Your task to perform on an android device: Check the settings for the Google Maps app Image 0: 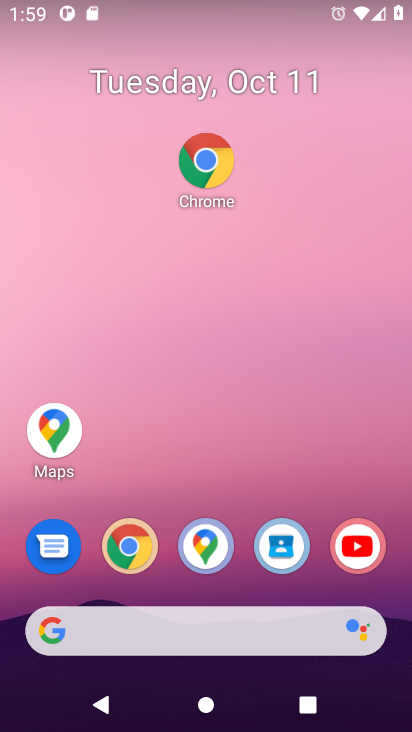
Step 0: click (125, 547)
Your task to perform on an android device: Check the settings for the Google Maps app Image 1: 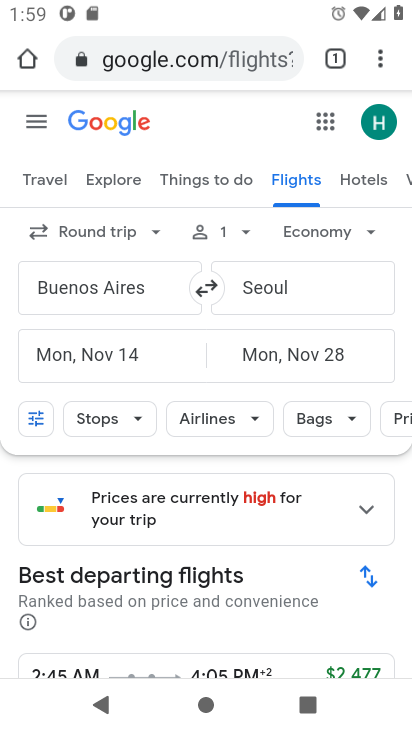
Step 1: click (185, 59)
Your task to perform on an android device: Check the settings for the Google Maps app Image 2: 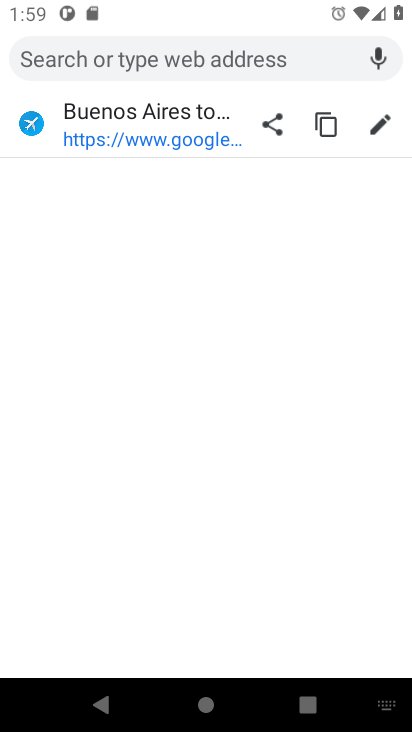
Step 2: press home button
Your task to perform on an android device: Check the settings for the Google Maps app Image 3: 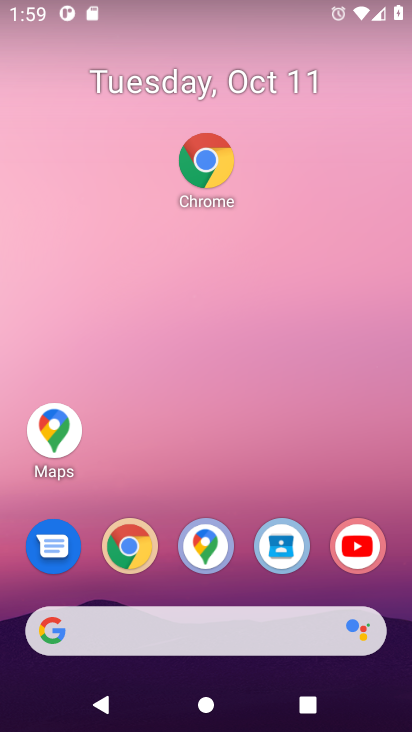
Step 3: drag from (197, 578) to (212, 223)
Your task to perform on an android device: Check the settings for the Google Maps app Image 4: 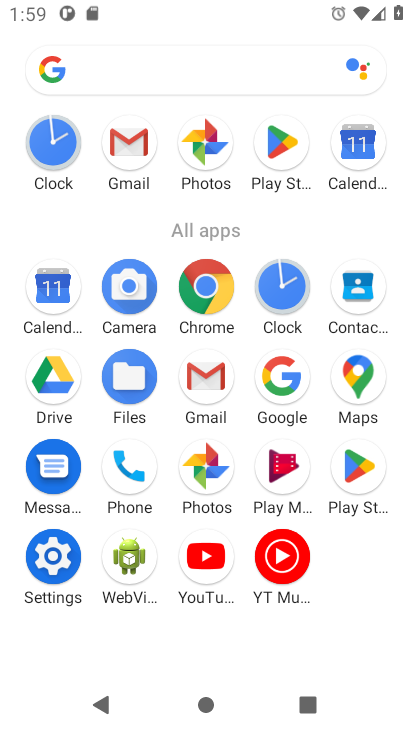
Step 4: click (62, 547)
Your task to perform on an android device: Check the settings for the Google Maps app Image 5: 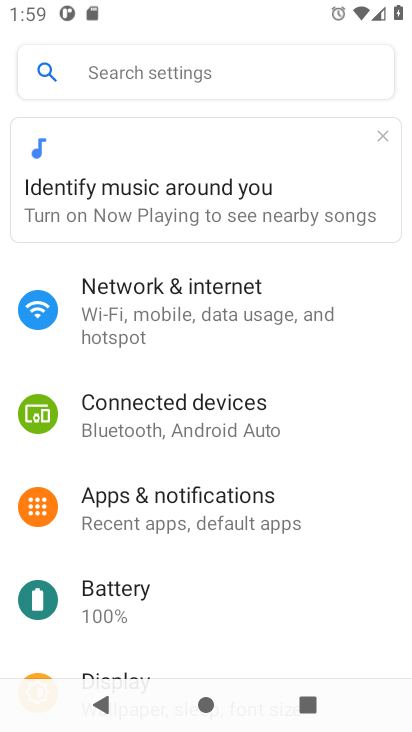
Step 5: click (205, 515)
Your task to perform on an android device: Check the settings for the Google Maps app Image 6: 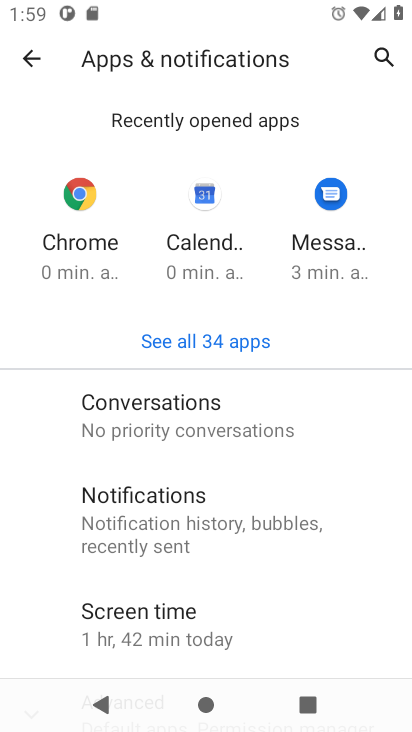
Step 6: drag from (154, 543) to (146, 499)
Your task to perform on an android device: Check the settings for the Google Maps app Image 7: 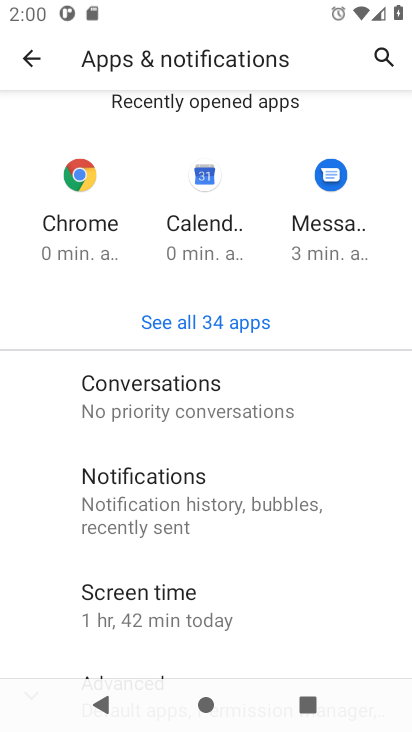
Step 7: click (186, 326)
Your task to perform on an android device: Check the settings for the Google Maps app Image 8: 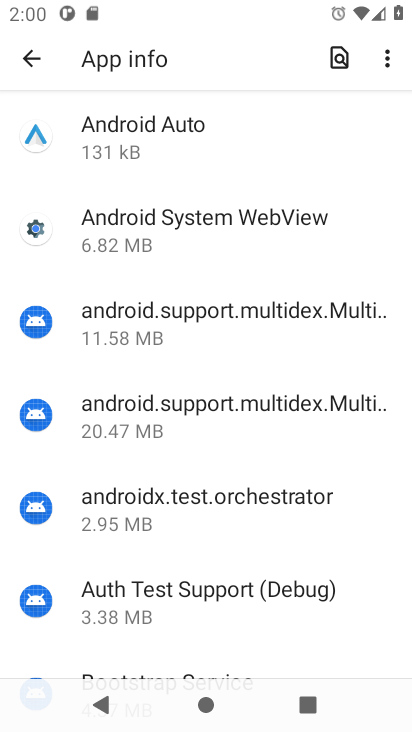
Step 8: drag from (167, 601) to (188, 218)
Your task to perform on an android device: Check the settings for the Google Maps app Image 9: 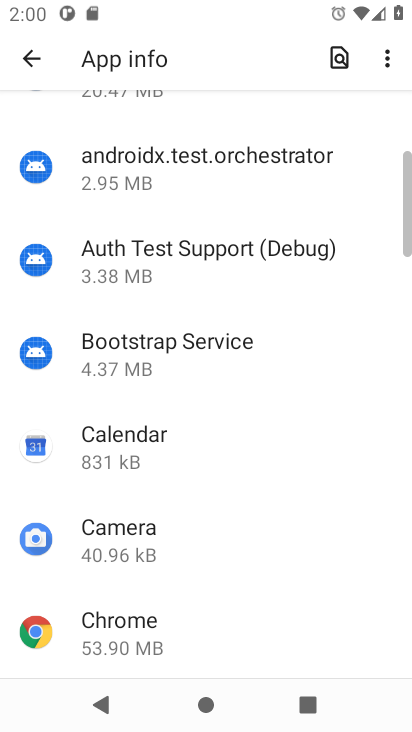
Step 9: drag from (197, 621) to (205, 196)
Your task to perform on an android device: Check the settings for the Google Maps app Image 10: 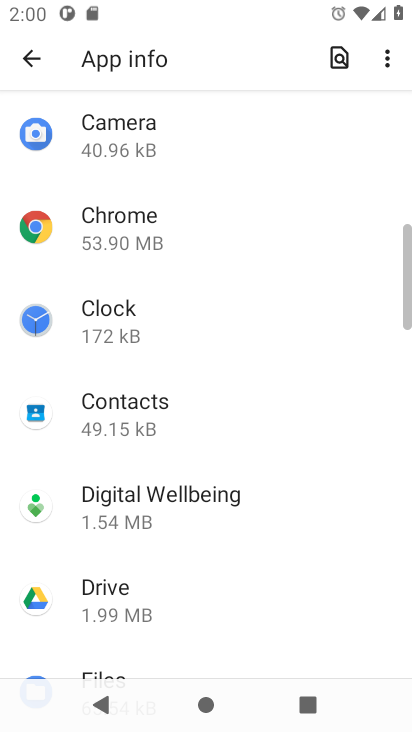
Step 10: drag from (208, 632) to (208, 241)
Your task to perform on an android device: Check the settings for the Google Maps app Image 11: 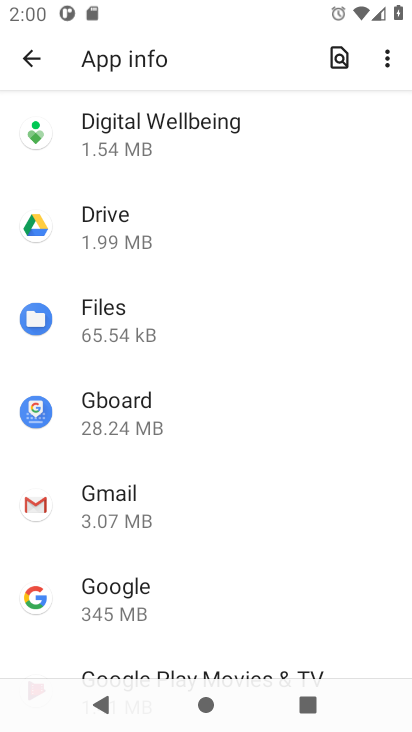
Step 11: drag from (183, 620) to (224, 209)
Your task to perform on an android device: Check the settings for the Google Maps app Image 12: 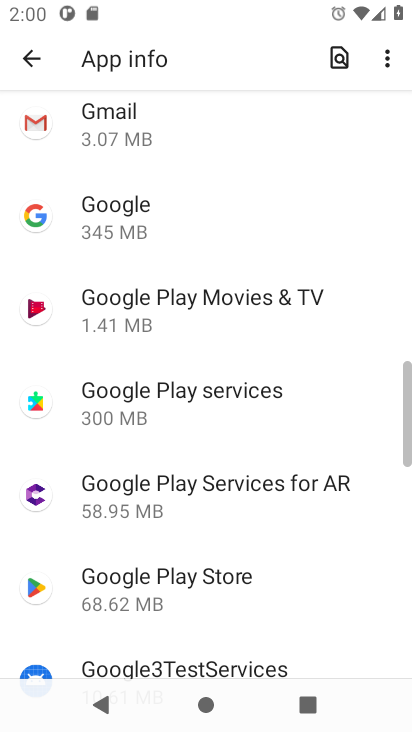
Step 12: drag from (193, 665) to (213, 298)
Your task to perform on an android device: Check the settings for the Google Maps app Image 13: 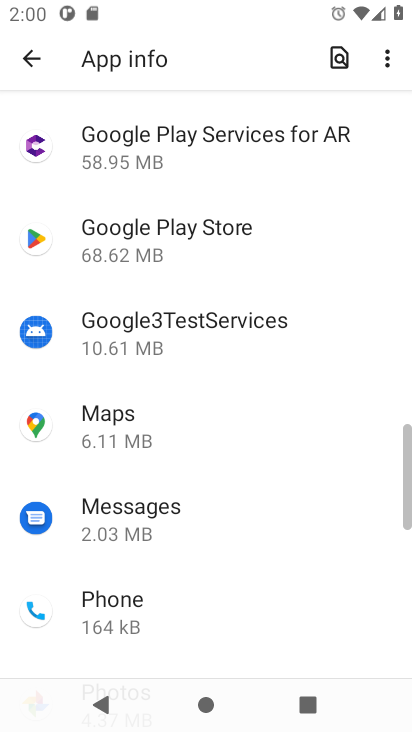
Step 13: click (155, 422)
Your task to perform on an android device: Check the settings for the Google Maps app Image 14: 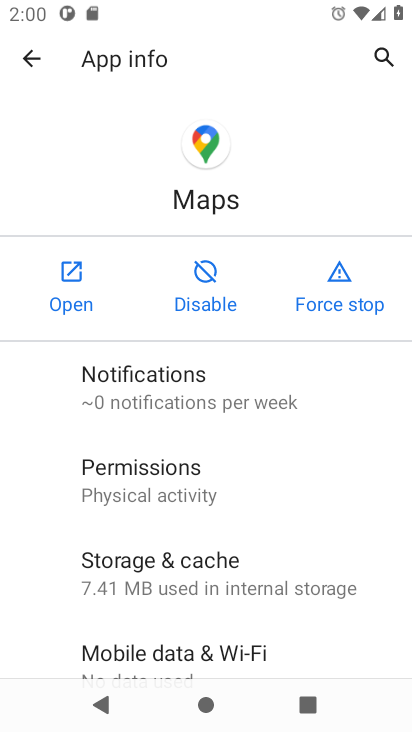
Step 14: click (135, 400)
Your task to perform on an android device: Check the settings for the Google Maps app Image 15: 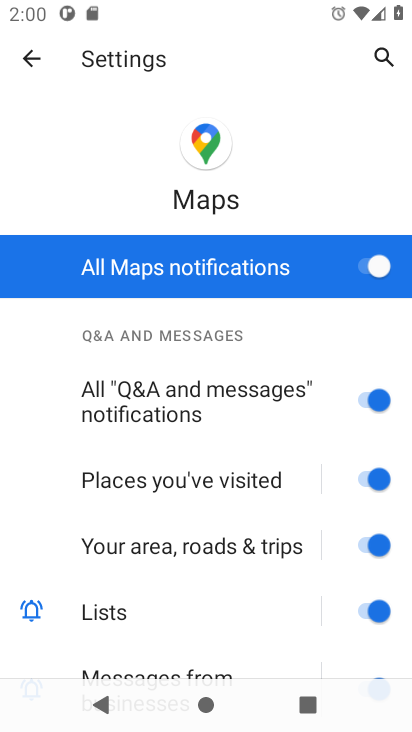
Step 15: drag from (199, 550) to (209, 293)
Your task to perform on an android device: Check the settings for the Google Maps app Image 16: 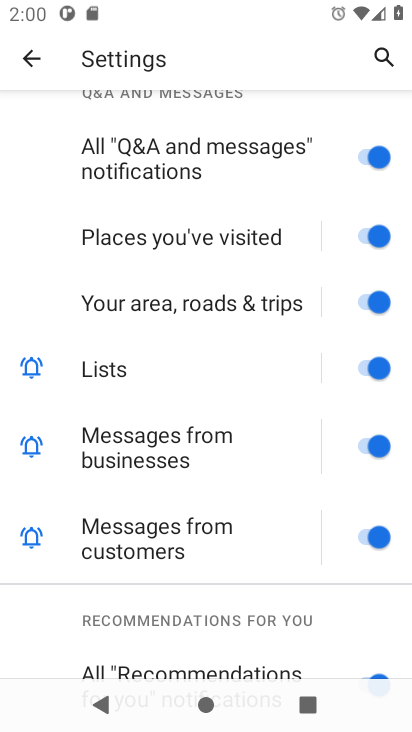
Step 16: drag from (192, 594) to (195, 363)
Your task to perform on an android device: Check the settings for the Google Maps app Image 17: 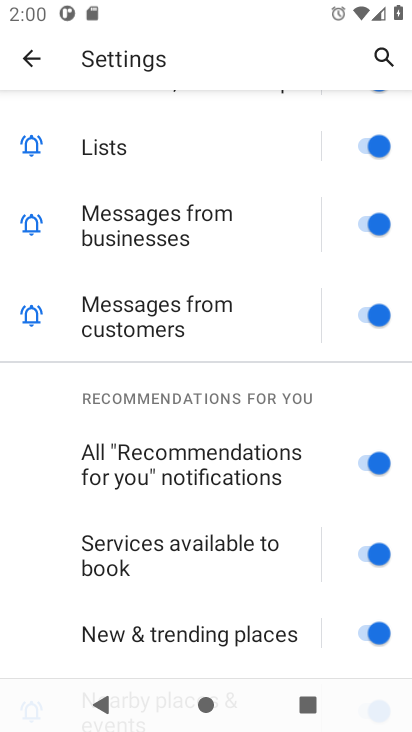
Step 17: drag from (256, 609) to (257, 304)
Your task to perform on an android device: Check the settings for the Google Maps app Image 18: 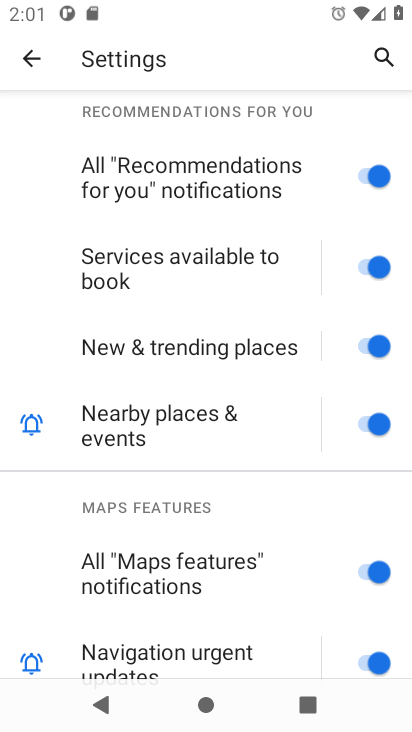
Step 18: drag from (171, 639) to (174, 241)
Your task to perform on an android device: Check the settings for the Google Maps app Image 19: 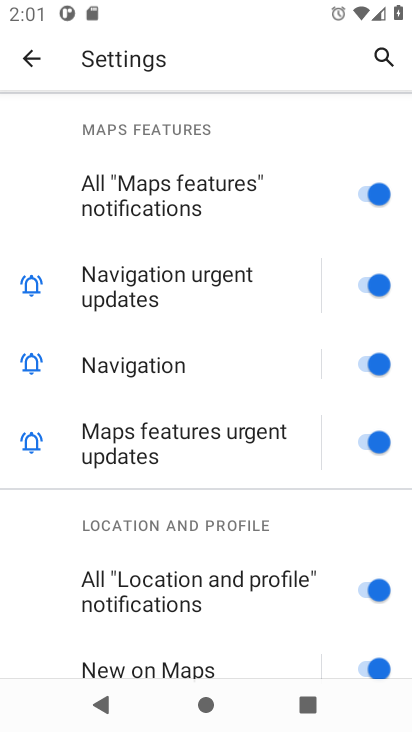
Step 19: drag from (193, 560) to (197, 149)
Your task to perform on an android device: Check the settings for the Google Maps app Image 20: 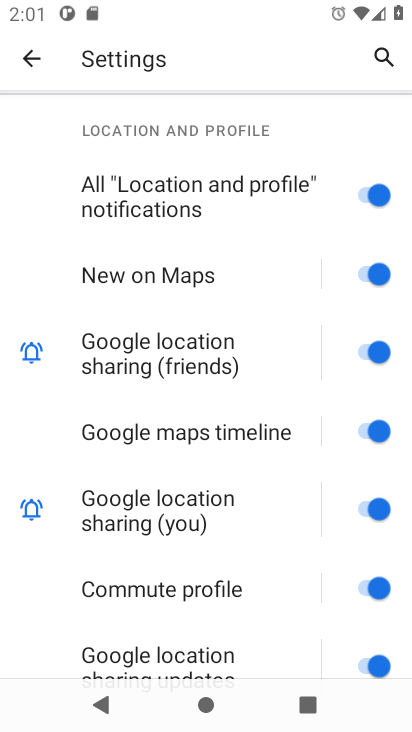
Step 20: drag from (258, 534) to (274, 209)
Your task to perform on an android device: Check the settings for the Google Maps app Image 21: 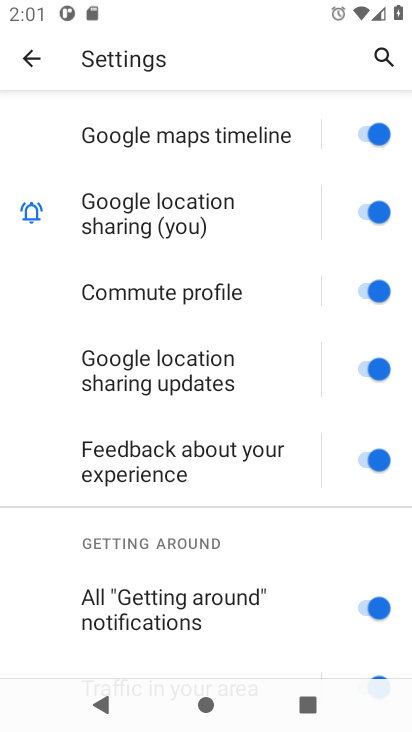
Step 21: drag from (244, 603) to (255, 212)
Your task to perform on an android device: Check the settings for the Google Maps app Image 22: 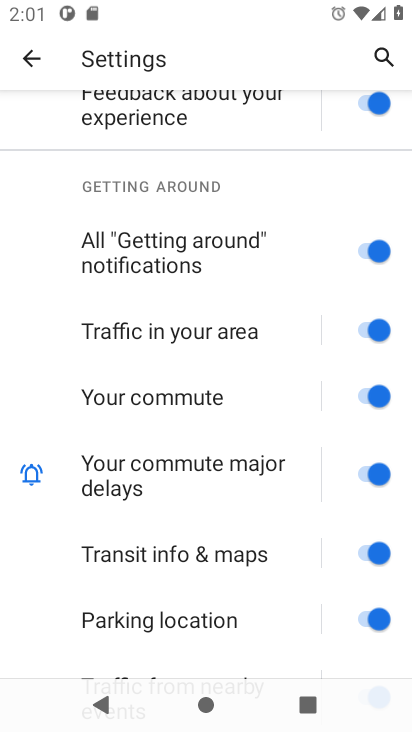
Step 22: drag from (213, 607) to (211, 263)
Your task to perform on an android device: Check the settings for the Google Maps app Image 23: 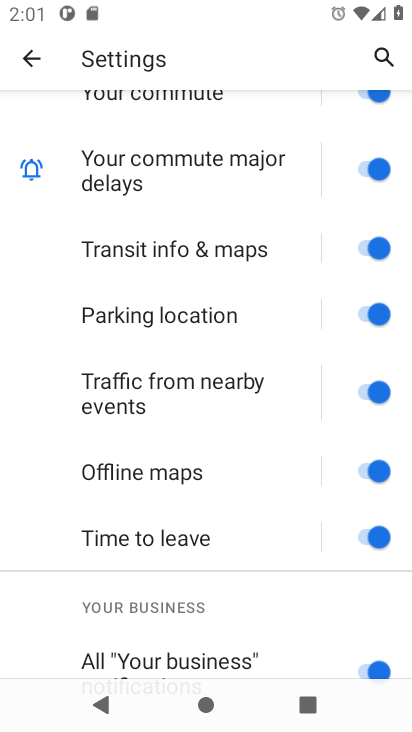
Step 23: drag from (190, 592) to (216, 207)
Your task to perform on an android device: Check the settings for the Google Maps app Image 24: 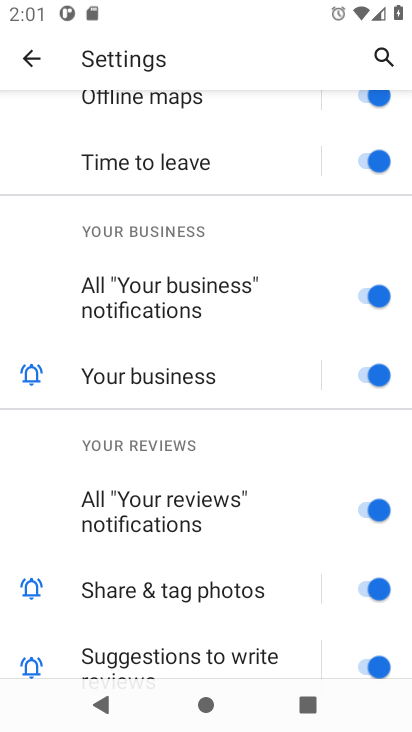
Step 24: drag from (202, 437) to (230, 176)
Your task to perform on an android device: Check the settings for the Google Maps app Image 25: 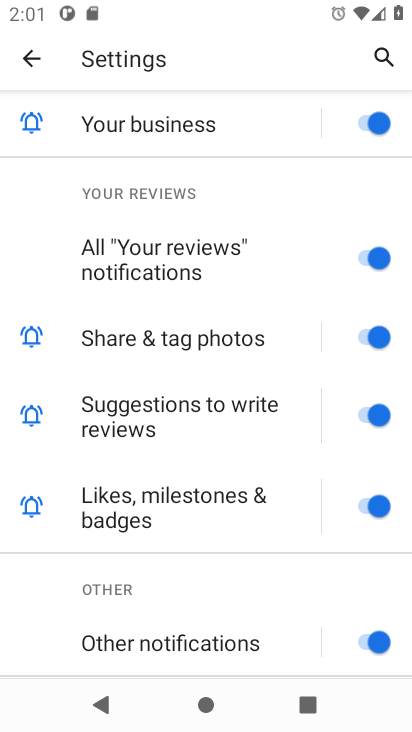
Step 25: drag from (208, 577) to (229, 183)
Your task to perform on an android device: Check the settings for the Google Maps app Image 26: 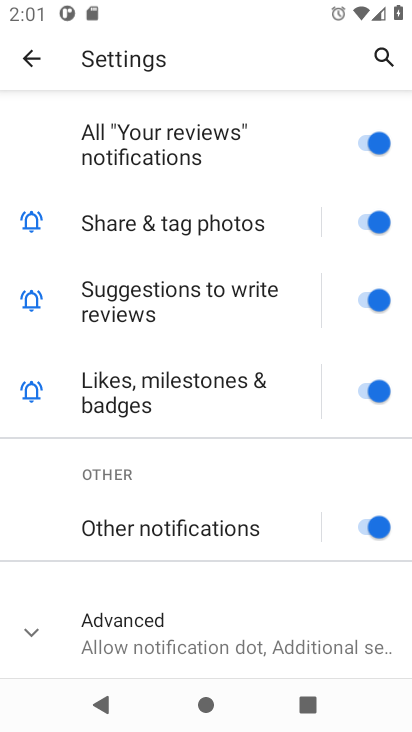
Step 26: click (108, 633)
Your task to perform on an android device: Check the settings for the Google Maps app Image 27: 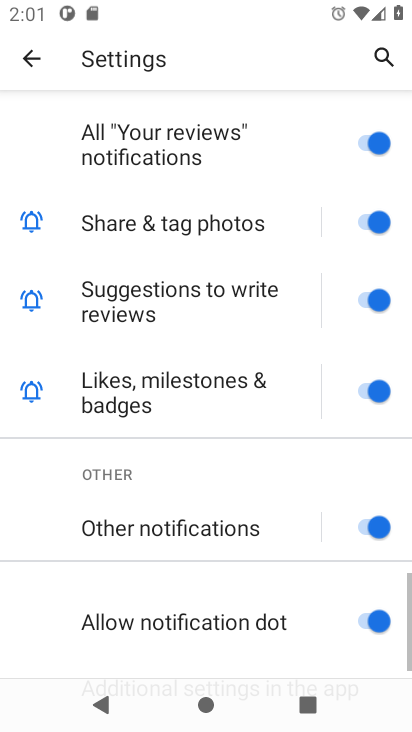
Step 27: task complete